Your task to perform on an android device: turn off location Image 0: 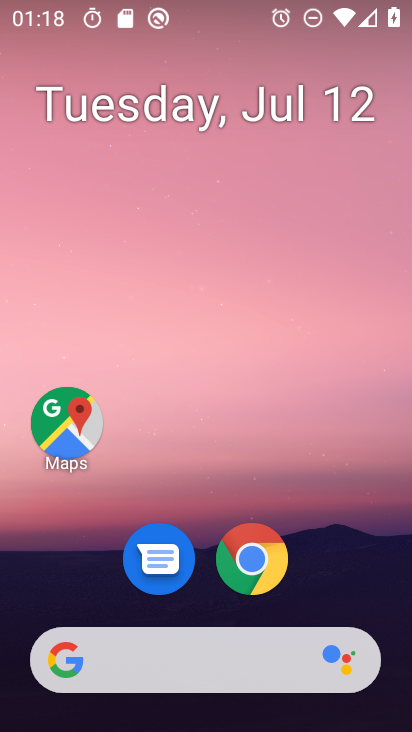
Step 0: drag from (168, 554) to (187, 172)
Your task to perform on an android device: turn off location Image 1: 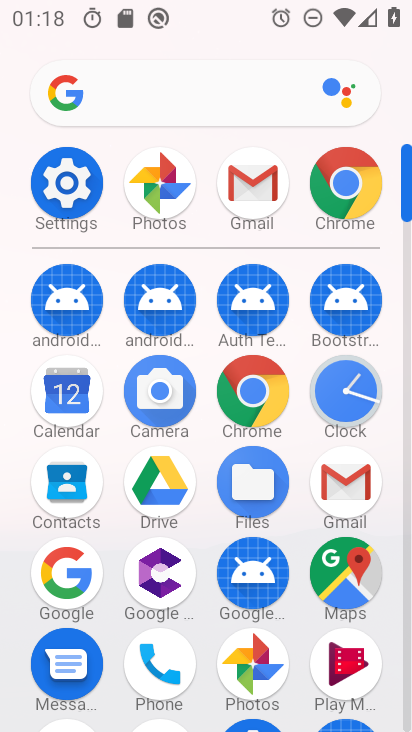
Step 1: click (40, 163)
Your task to perform on an android device: turn off location Image 2: 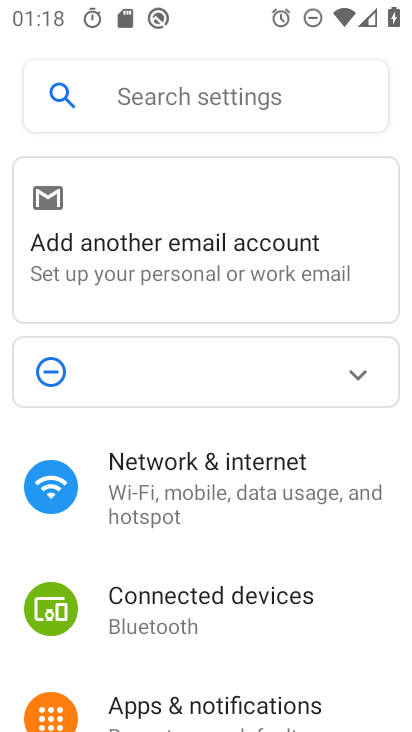
Step 2: drag from (228, 670) to (269, 173)
Your task to perform on an android device: turn off location Image 3: 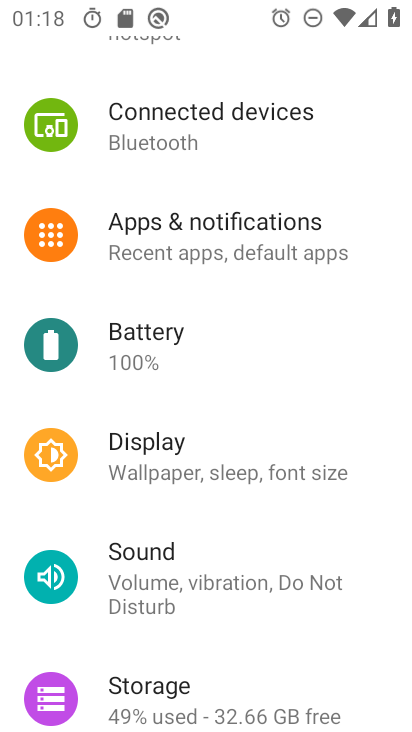
Step 3: drag from (132, 638) to (251, 128)
Your task to perform on an android device: turn off location Image 4: 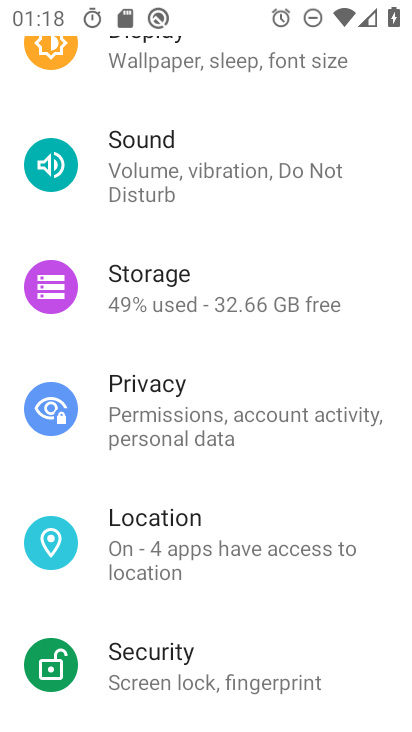
Step 4: click (147, 529)
Your task to perform on an android device: turn off location Image 5: 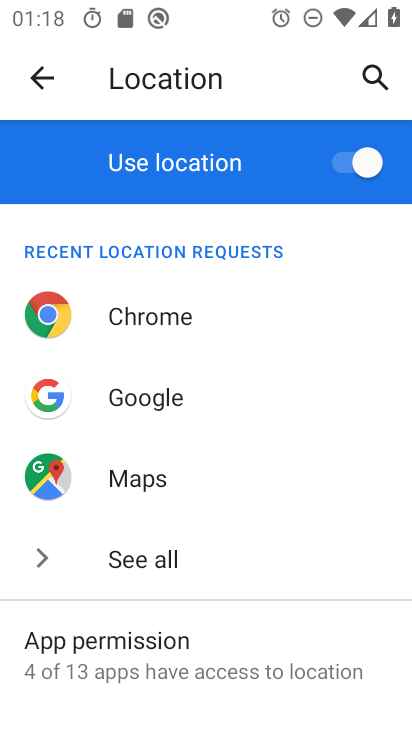
Step 5: click (348, 161)
Your task to perform on an android device: turn off location Image 6: 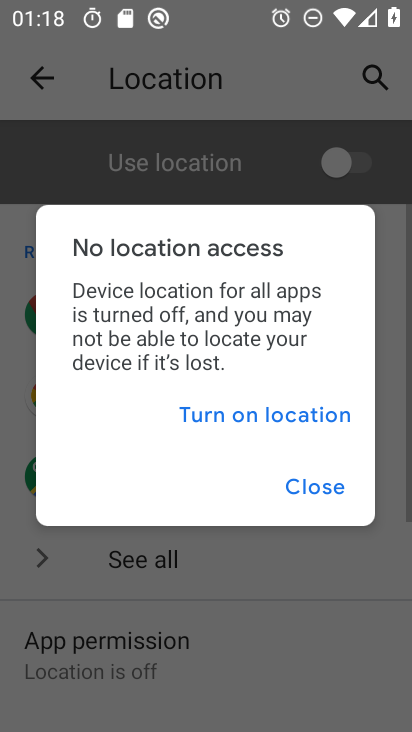
Step 6: task complete